Your task to perform on an android device: Go to Google maps Image 0: 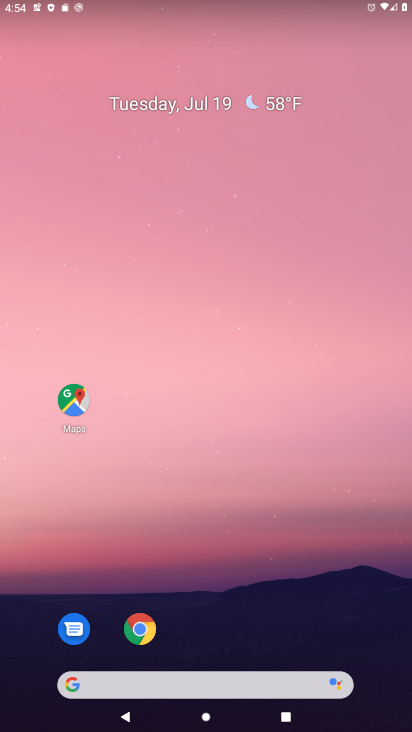
Step 0: drag from (250, 304) to (242, 75)
Your task to perform on an android device: Go to Google maps Image 1: 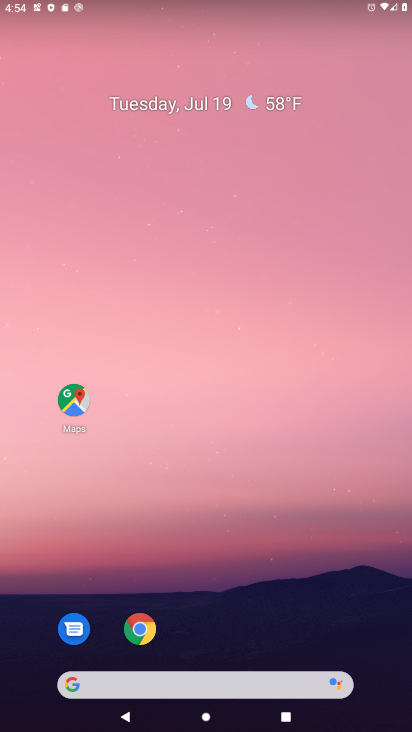
Step 1: drag from (289, 675) to (250, 114)
Your task to perform on an android device: Go to Google maps Image 2: 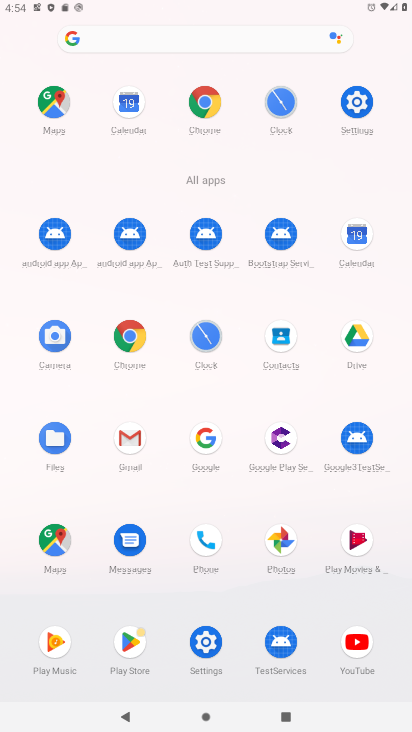
Step 2: click (50, 548)
Your task to perform on an android device: Go to Google maps Image 3: 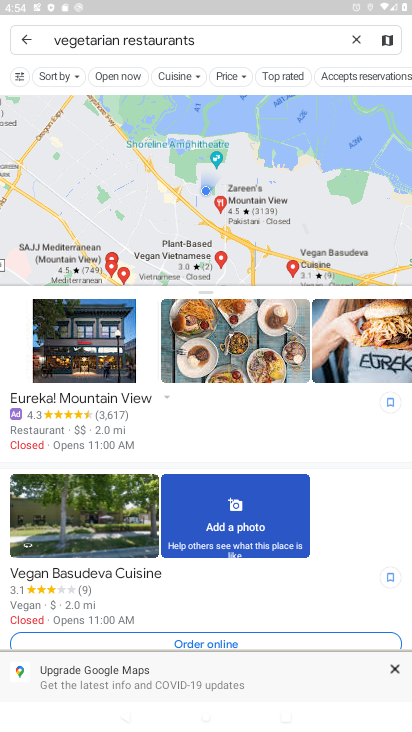
Step 3: task complete